Your task to perform on an android device: change timer sound Image 0: 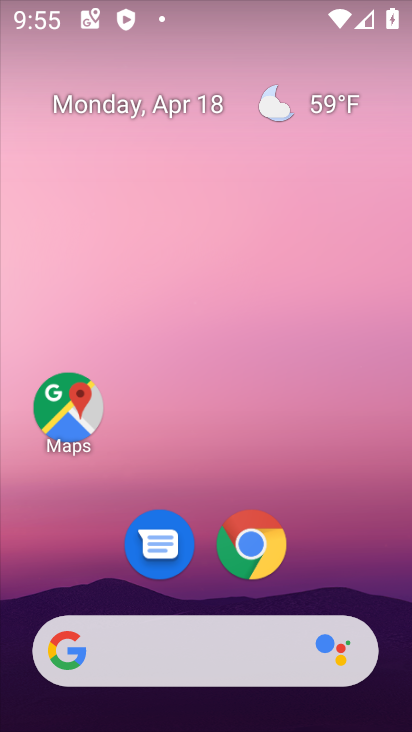
Step 0: drag from (323, 564) to (361, 207)
Your task to perform on an android device: change timer sound Image 1: 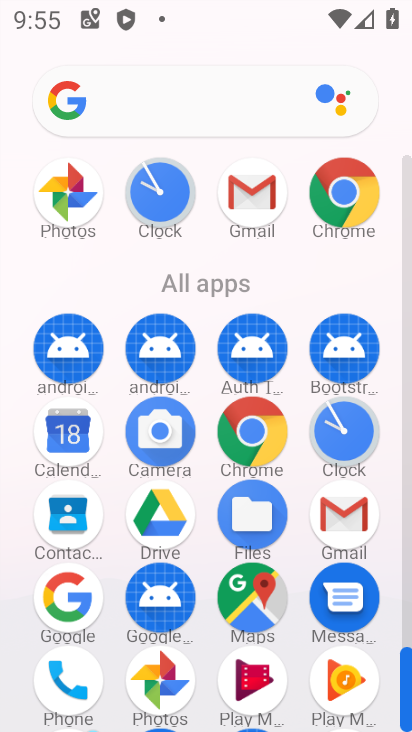
Step 1: click (349, 420)
Your task to perform on an android device: change timer sound Image 2: 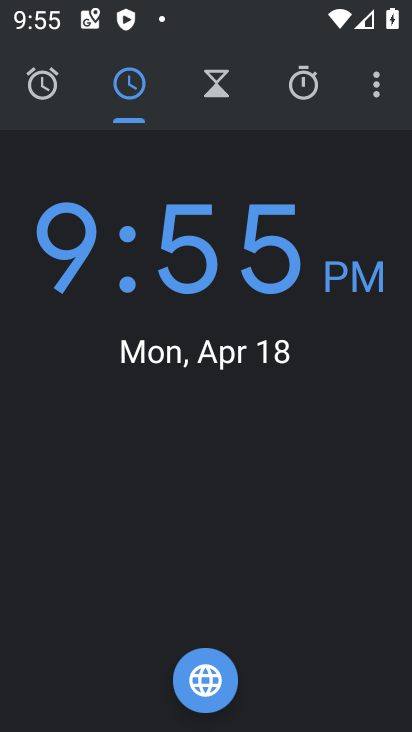
Step 2: click (381, 85)
Your task to perform on an android device: change timer sound Image 3: 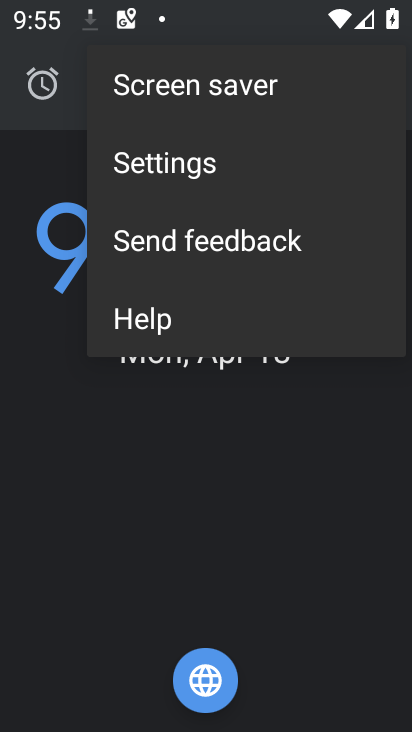
Step 3: click (209, 150)
Your task to perform on an android device: change timer sound Image 4: 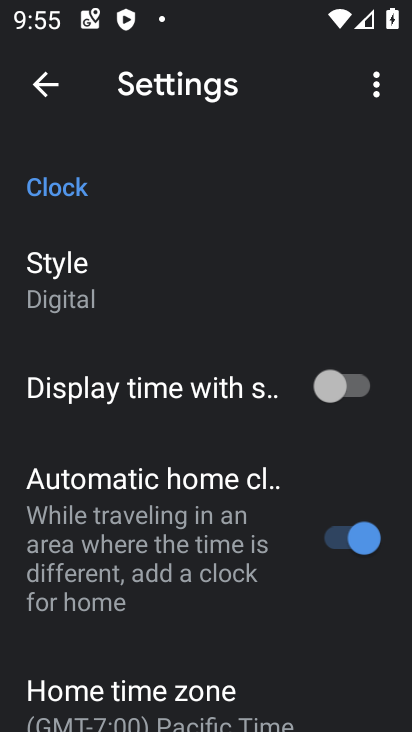
Step 4: drag from (157, 572) to (284, 68)
Your task to perform on an android device: change timer sound Image 5: 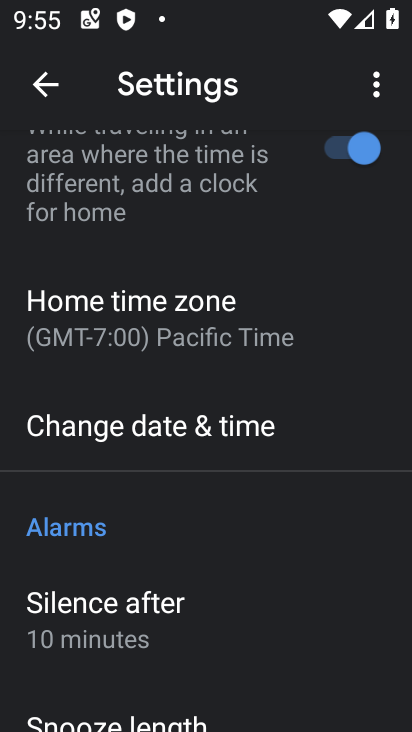
Step 5: drag from (220, 474) to (288, 66)
Your task to perform on an android device: change timer sound Image 6: 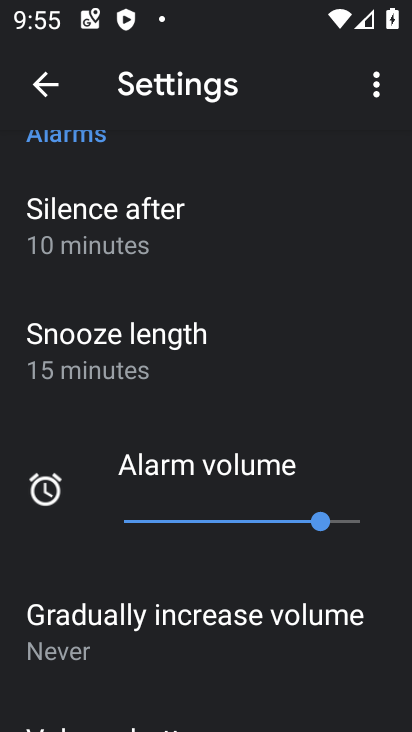
Step 6: drag from (124, 658) to (257, 143)
Your task to perform on an android device: change timer sound Image 7: 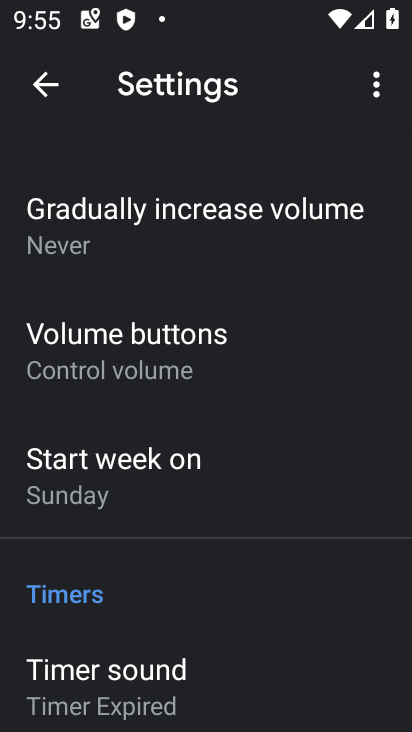
Step 7: drag from (169, 602) to (273, 209)
Your task to perform on an android device: change timer sound Image 8: 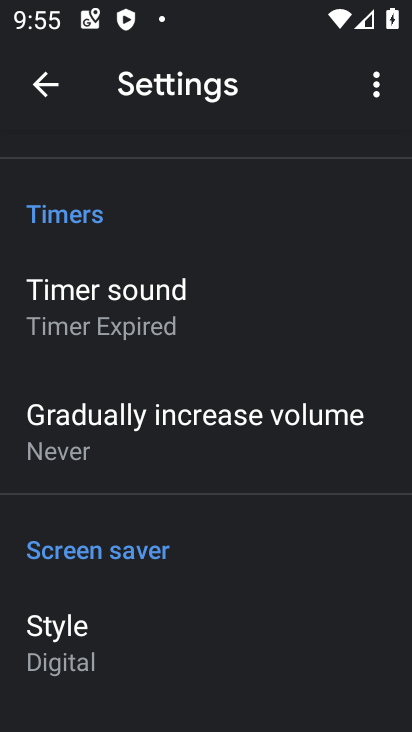
Step 8: click (179, 323)
Your task to perform on an android device: change timer sound Image 9: 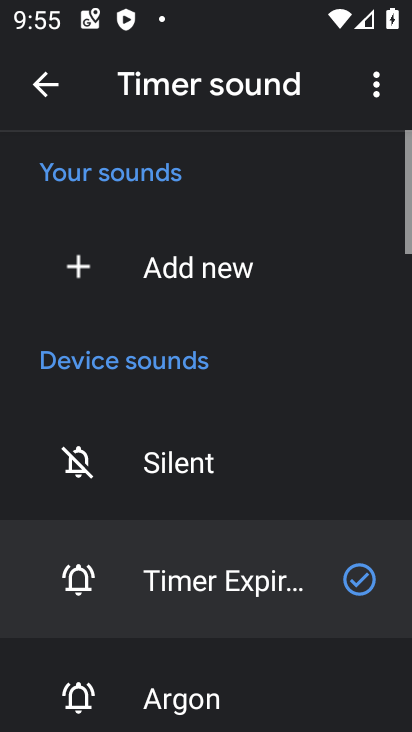
Step 9: drag from (143, 629) to (252, 132)
Your task to perform on an android device: change timer sound Image 10: 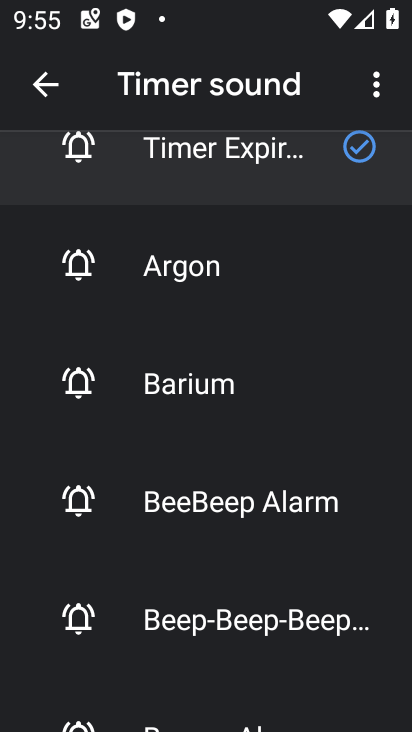
Step 10: click (206, 604)
Your task to perform on an android device: change timer sound Image 11: 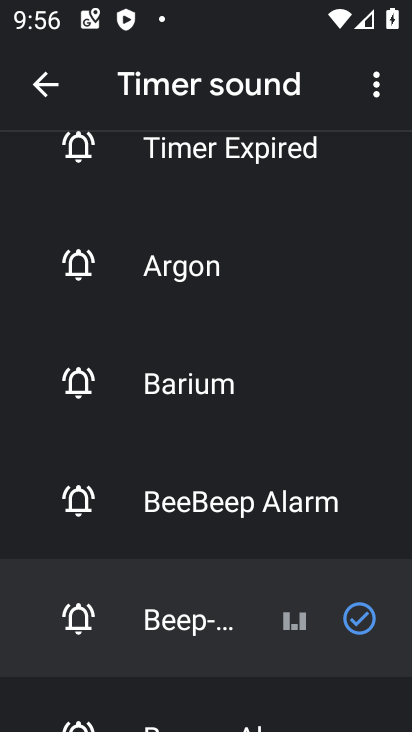
Step 11: task complete